Your task to perform on an android device: Set the phone to "Do not disturb". Image 0: 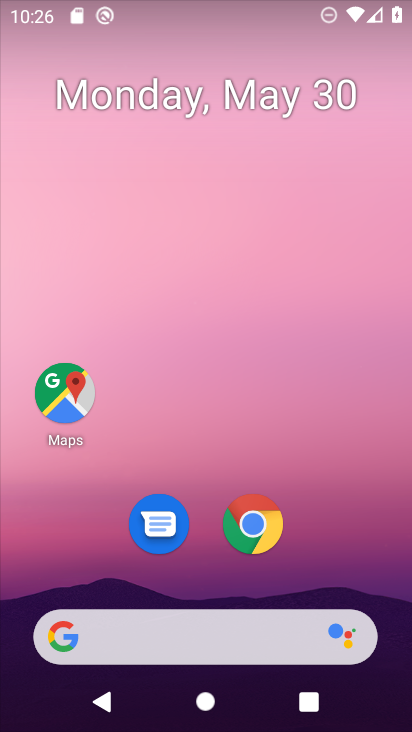
Step 0: drag from (331, 523) to (287, 32)
Your task to perform on an android device: Set the phone to "Do not disturb". Image 1: 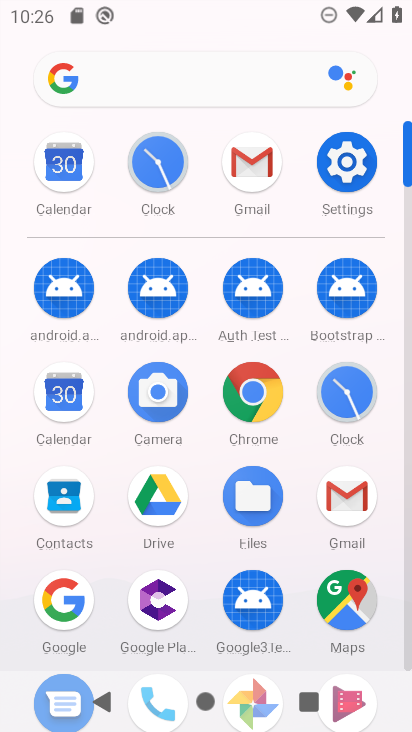
Step 1: click (346, 158)
Your task to perform on an android device: Set the phone to "Do not disturb". Image 2: 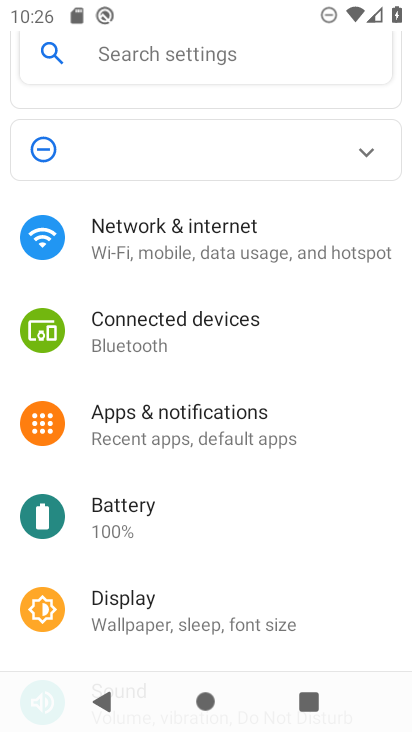
Step 2: drag from (228, 481) to (246, 161)
Your task to perform on an android device: Set the phone to "Do not disturb". Image 3: 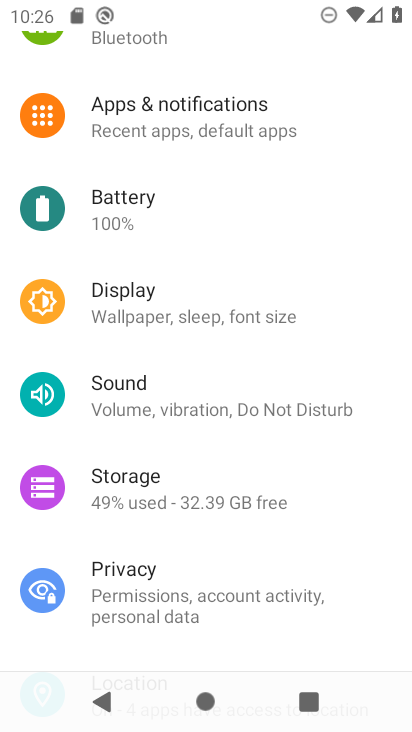
Step 3: click (232, 419)
Your task to perform on an android device: Set the phone to "Do not disturb". Image 4: 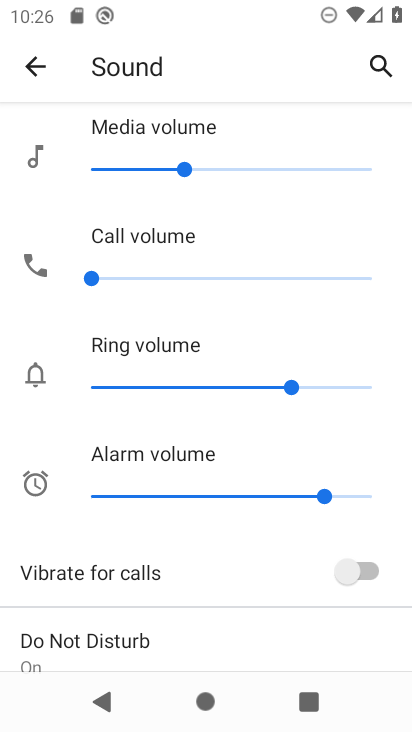
Step 4: task complete